Your task to perform on an android device: Toggle the flashlight Image 0: 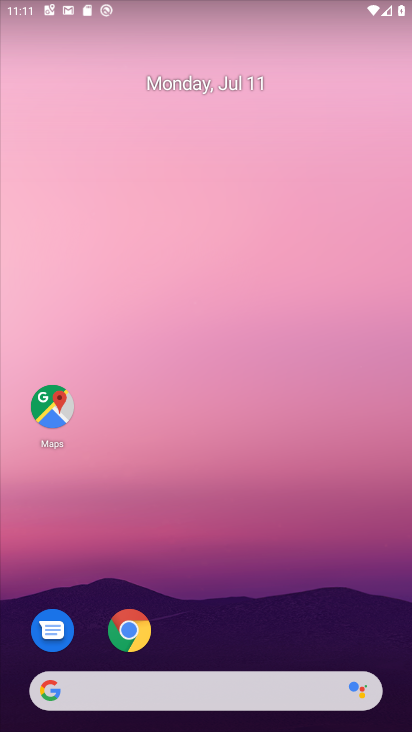
Step 0: drag from (186, 308) to (194, 118)
Your task to perform on an android device: Toggle the flashlight Image 1: 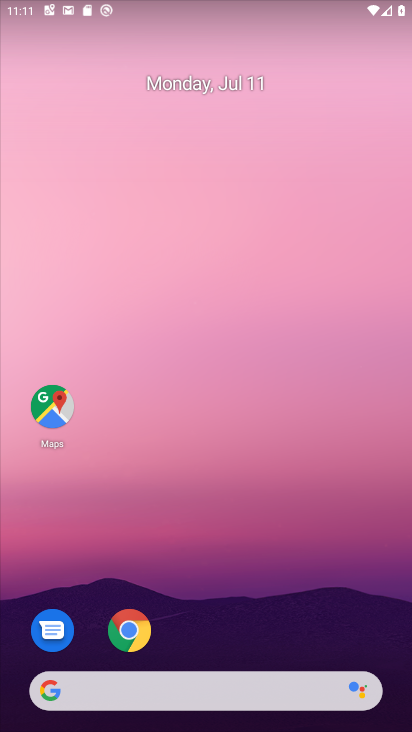
Step 1: task complete